Your task to perform on an android device: Search for the best rated coffee table on Target. Image 0: 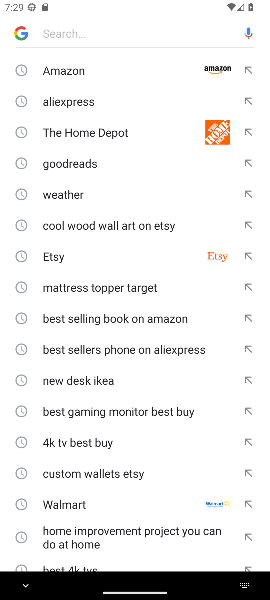
Step 0: press home button
Your task to perform on an android device: Search for the best rated coffee table on Target. Image 1: 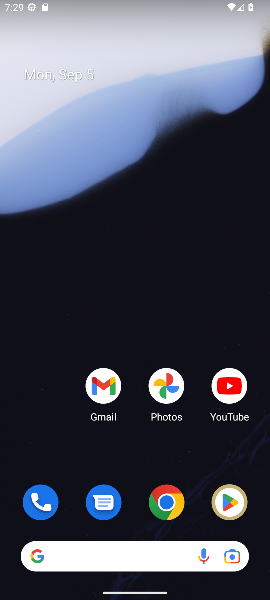
Step 1: drag from (198, 518) to (169, 55)
Your task to perform on an android device: Search for the best rated coffee table on Target. Image 2: 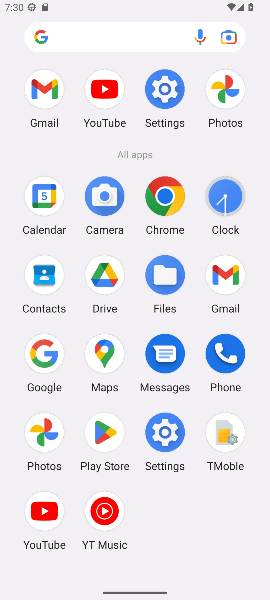
Step 2: click (42, 357)
Your task to perform on an android device: Search for the best rated coffee table on Target. Image 3: 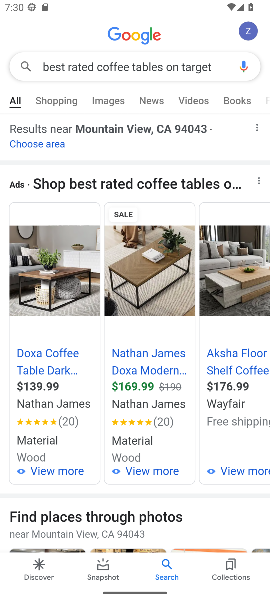
Step 3: press back button
Your task to perform on an android device: Search for the best rated coffee table on Target. Image 4: 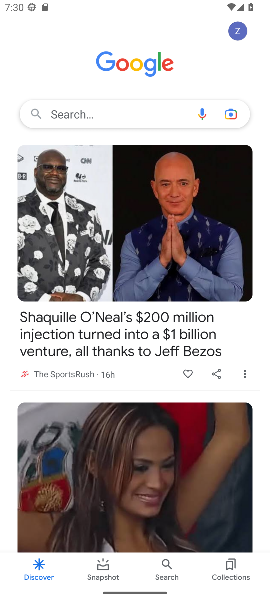
Step 4: click (70, 108)
Your task to perform on an android device: Search for the best rated coffee table on Target. Image 5: 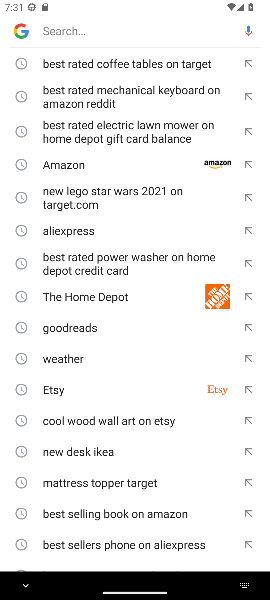
Step 5: type "best rated coffee table on Target"
Your task to perform on an android device: Search for the best rated coffee table on Target. Image 6: 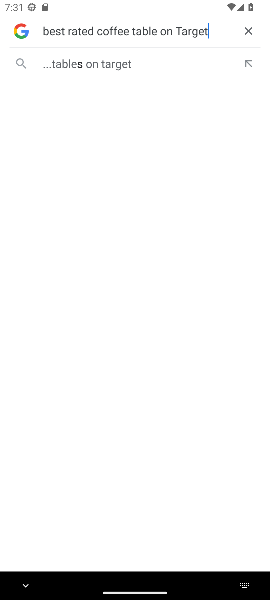
Step 6: click (75, 66)
Your task to perform on an android device: Search for the best rated coffee table on Target. Image 7: 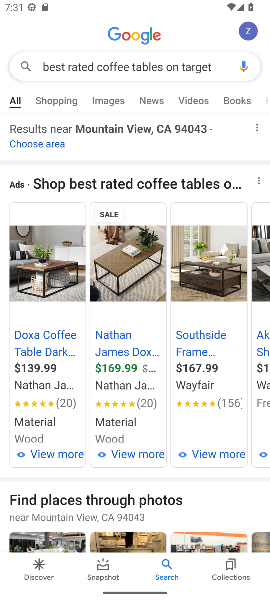
Step 7: task complete